Your task to perform on an android device: Open ESPN.com Image 0: 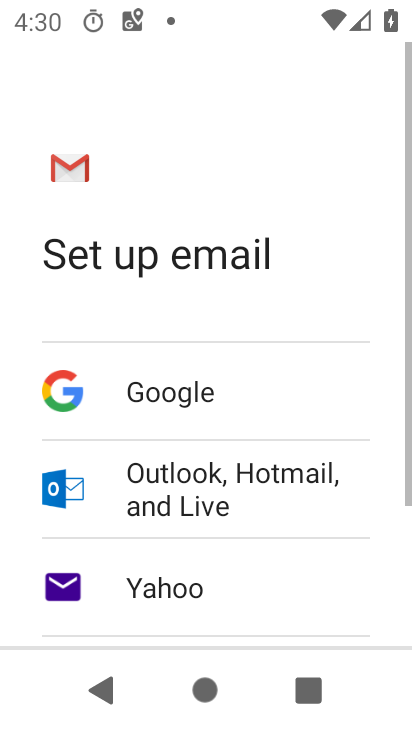
Step 0: press home button
Your task to perform on an android device: Open ESPN.com Image 1: 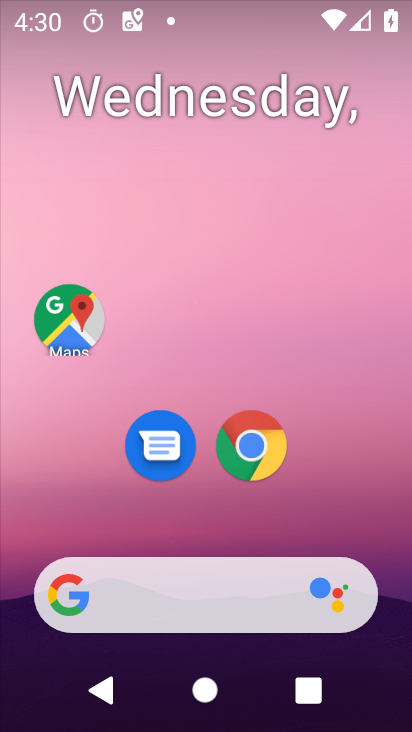
Step 1: drag from (224, 498) to (235, 108)
Your task to perform on an android device: Open ESPN.com Image 2: 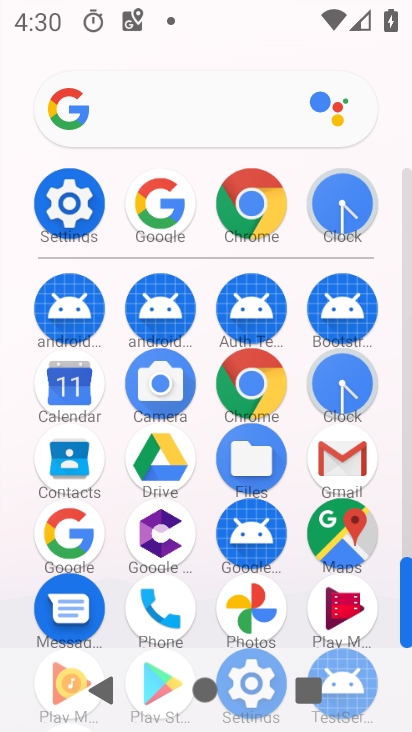
Step 2: click (170, 212)
Your task to perform on an android device: Open ESPN.com Image 3: 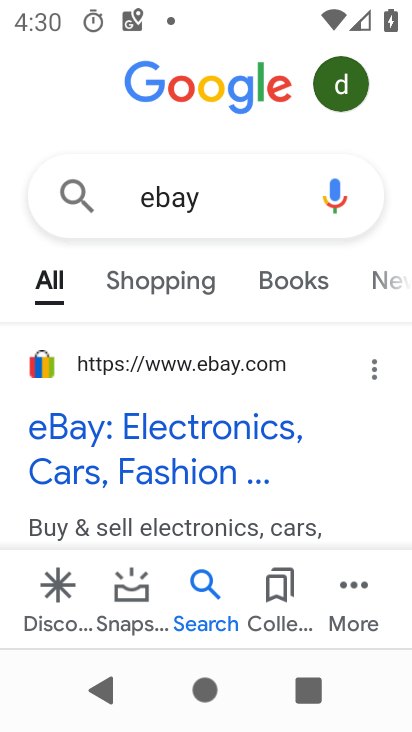
Step 3: click (191, 194)
Your task to perform on an android device: Open ESPN.com Image 4: 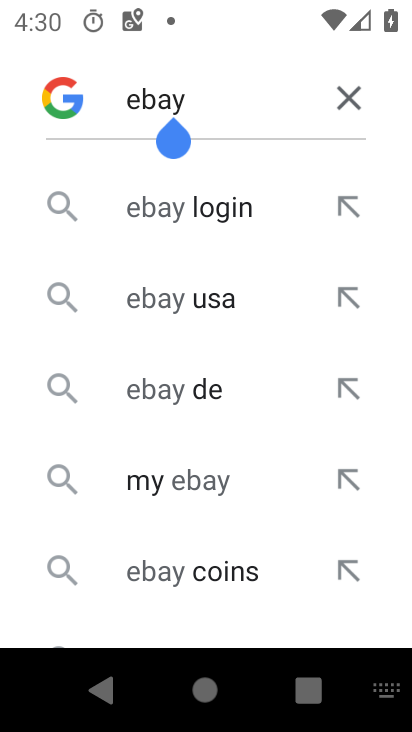
Step 4: click (350, 99)
Your task to perform on an android device: Open ESPN.com Image 5: 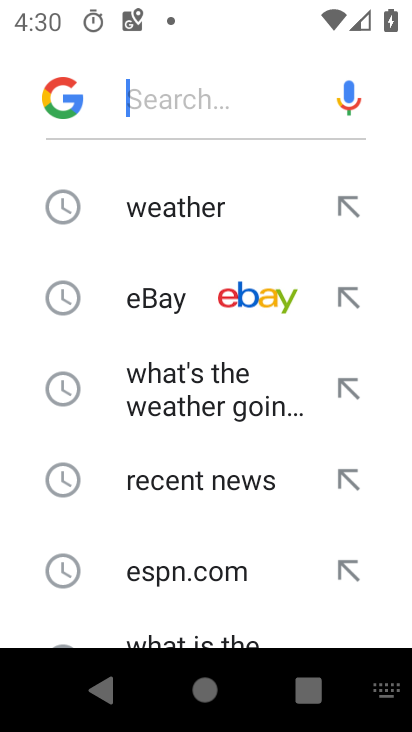
Step 5: drag from (205, 478) to (216, 277)
Your task to perform on an android device: Open ESPN.com Image 6: 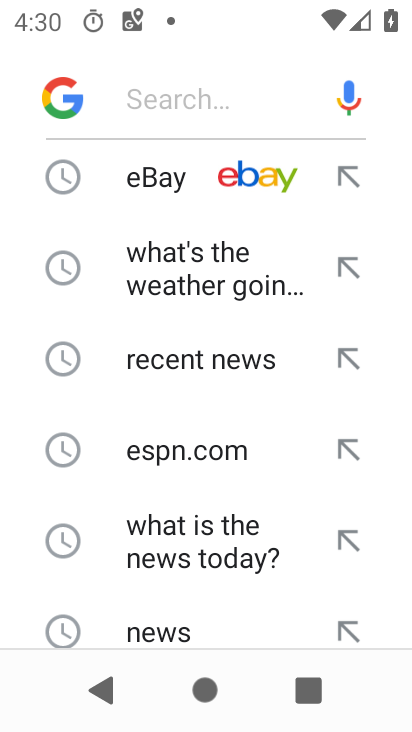
Step 6: click (169, 441)
Your task to perform on an android device: Open ESPN.com Image 7: 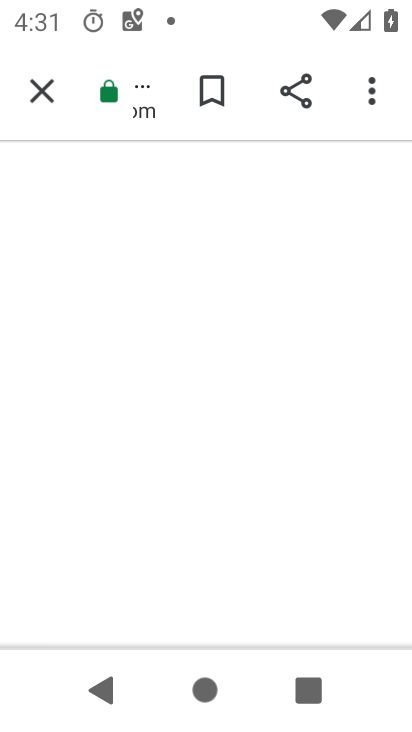
Step 7: task complete